Your task to perform on an android device: Go to sound settings Image 0: 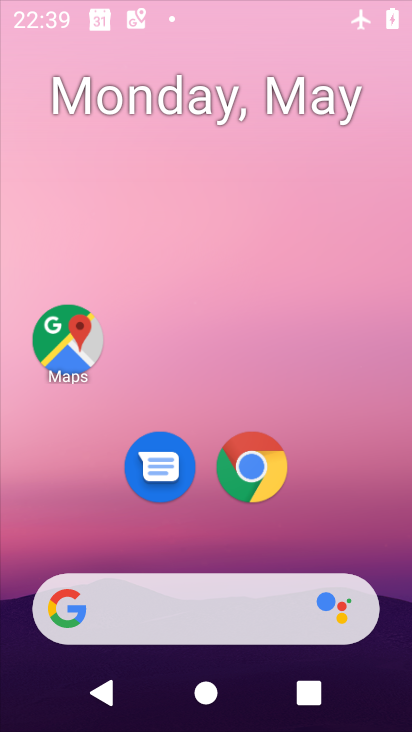
Step 0: drag from (249, 503) to (285, 221)
Your task to perform on an android device: Go to sound settings Image 1: 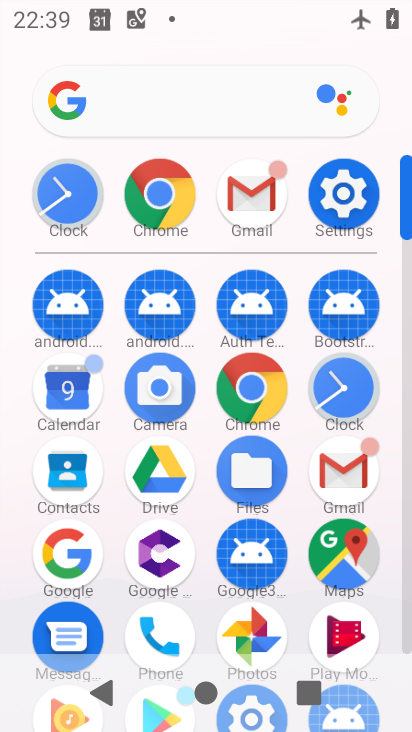
Step 1: click (343, 197)
Your task to perform on an android device: Go to sound settings Image 2: 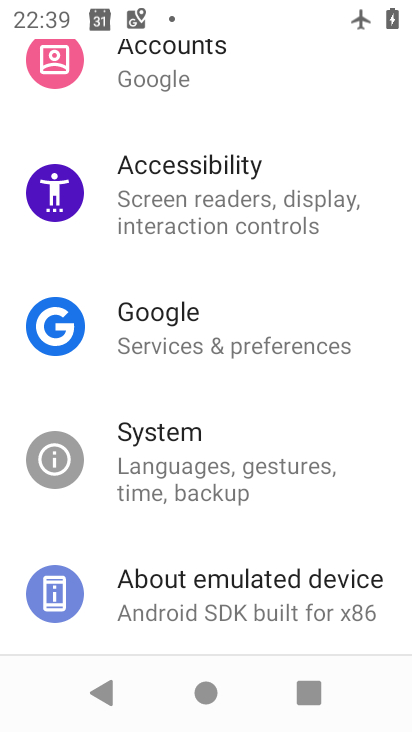
Step 2: drag from (186, 114) to (185, 560)
Your task to perform on an android device: Go to sound settings Image 3: 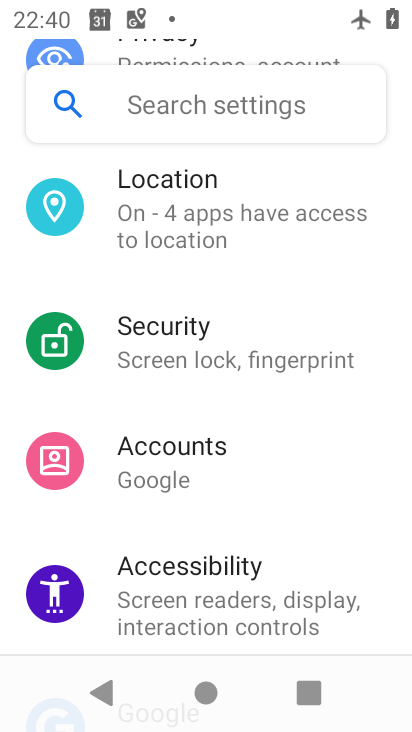
Step 3: drag from (205, 227) to (201, 597)
Your task to perform on an android device: Go to sound settings Image 4: 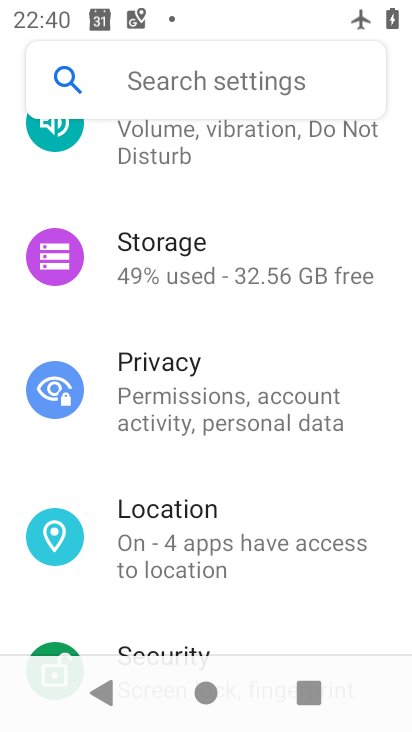
Step 4: drag from (212, 218) to (215, 601)
Your task to perform on an android device: Go to sound settings Image 5: 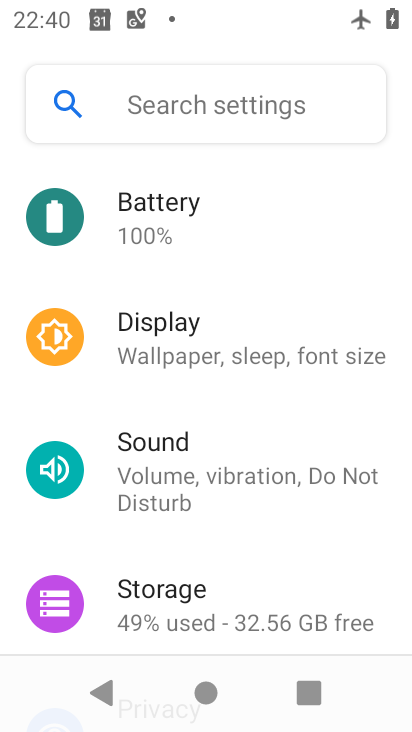
Step 5: drag from (243, 546) to (275, 254)
Your task to perform on an android device: Go to sound settings Image 6: 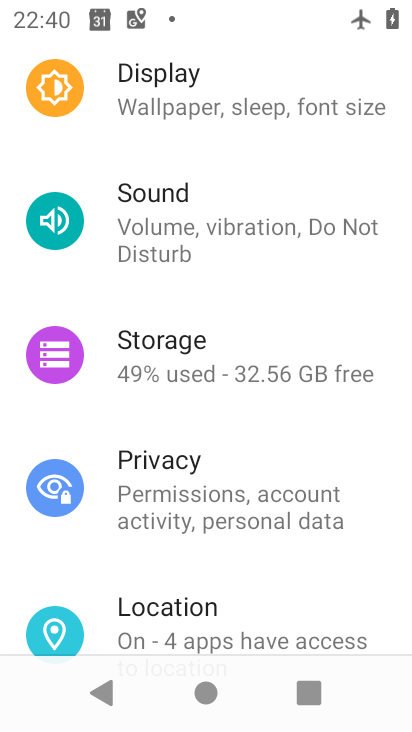
Step 6: drag from (209, 578) to (267, 126)
Your task to perform on an android device: Go to sound settings Image 7: 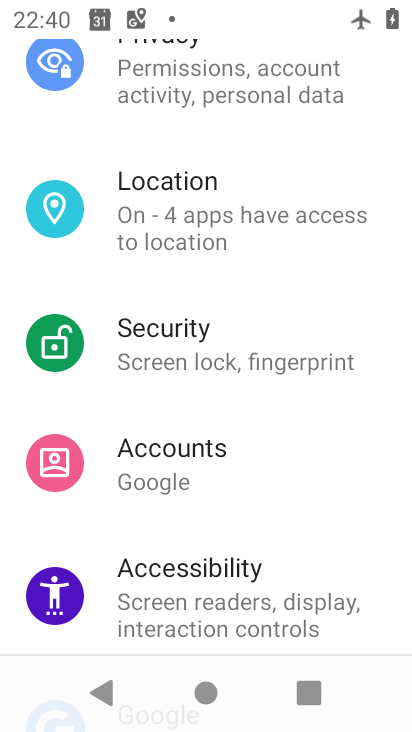
Step 7: drag from (214, 581) to (286, 131)
Your task to perform on an android device: Go to sound settings Image 8: 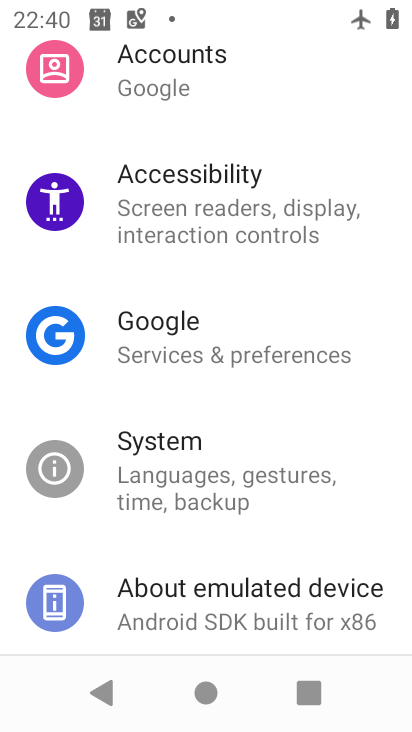
Step 8: drag from (258, 149) to (228, 557)
Your task to perform on an android device: Go to sound settings Image 9: 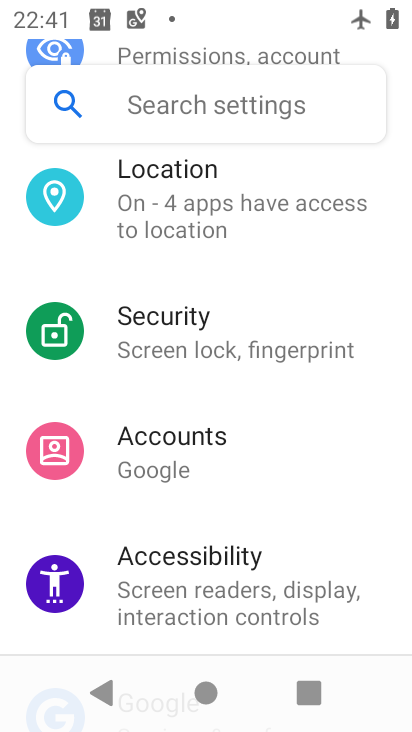
Step 9: drag from (254, 279) to (246, 596)
Your task to perform on an android device: Go to sound settings Image 10: 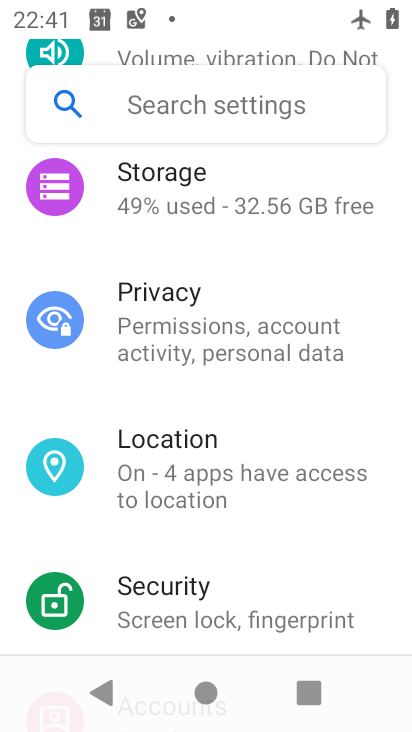
Step 10: drag from (263, 242) to (234, 620)
Your task to perform on an android device: Go to sound settings Image 11: 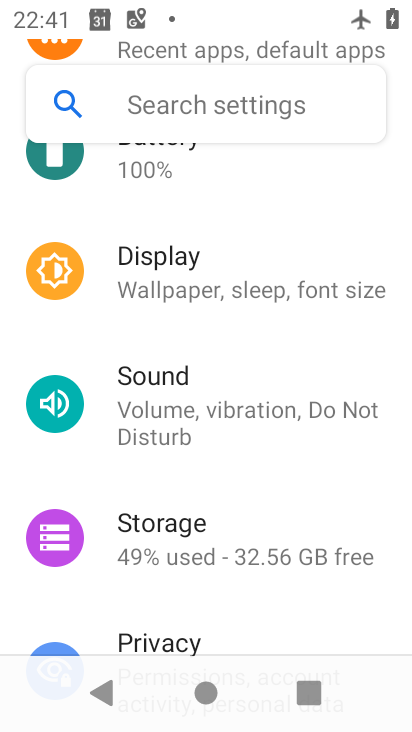
Step 11: click (201, 411)
Your task to perform on an android device: Go to sound settings Image 12: 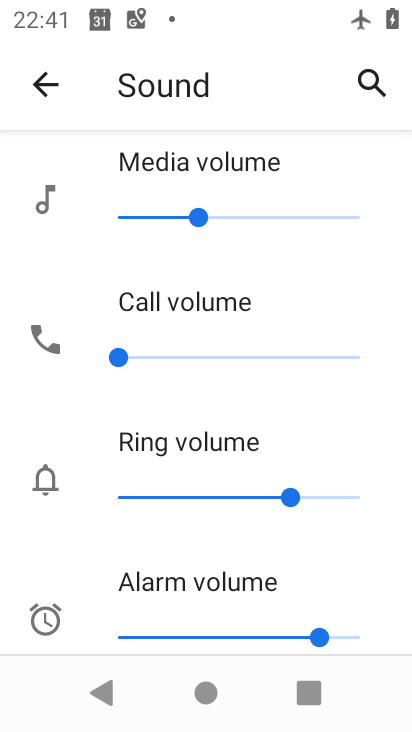
Step 12: task complete